Your task to perform on an android device: turn off sleep mode Image 0: 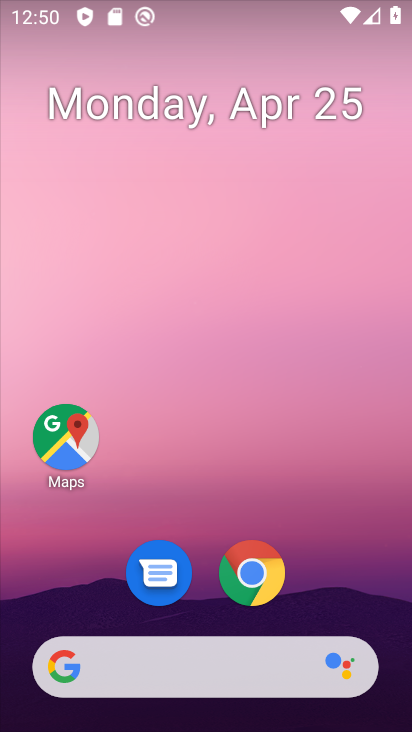
Step 0: drag from (204, 623) to (75, 16)
Your task to perform on an android device: turn off sleep mode Image 1: 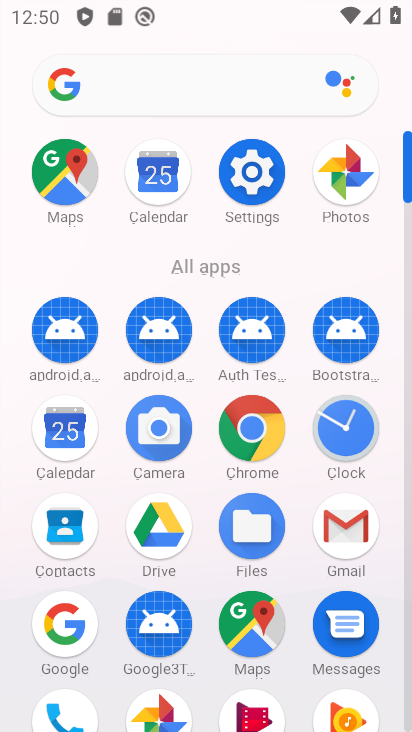
Step 1: click (254, 174)
Your task to perform on an android device: turn off sleep mode Image 2: 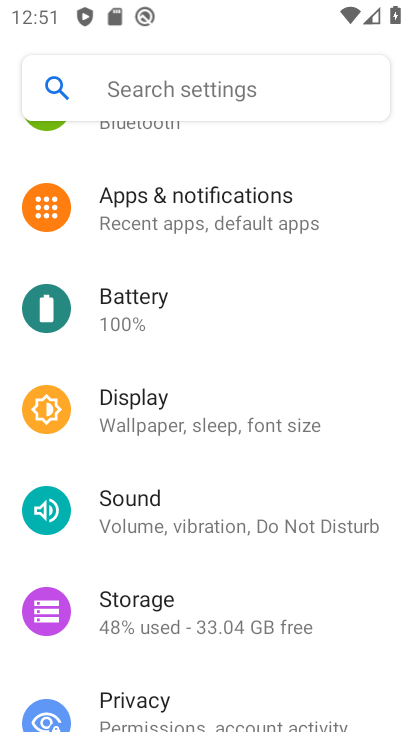
Step 2: click (208, 394)
Your task to perform on an android device: turn off sleep mode Image 3: 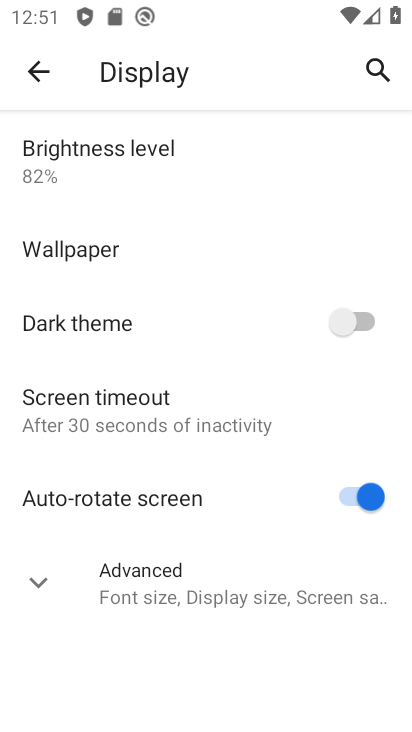
Step 3: click (185, 420)
Your task to perform on an android device: turn off sleep mode Image 4: 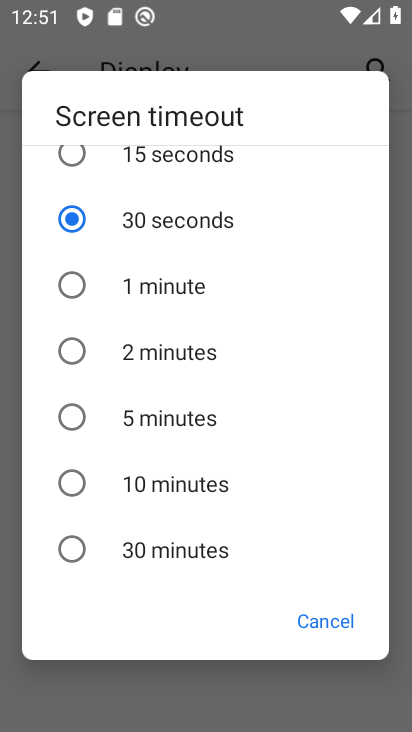
Step 4: drag from (198, 213) to (198, 359)
Your task to perform on an android device: turn off sleep mode Image 5: 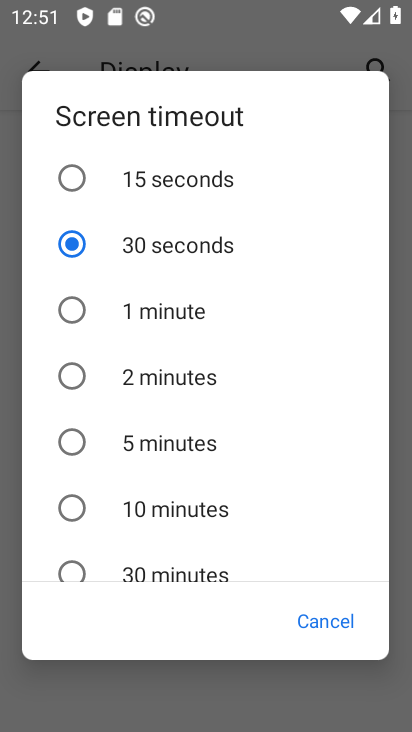
Step 5: click (201, 189)
Your task to perform on an android device: turn off sleep mode Image 6: 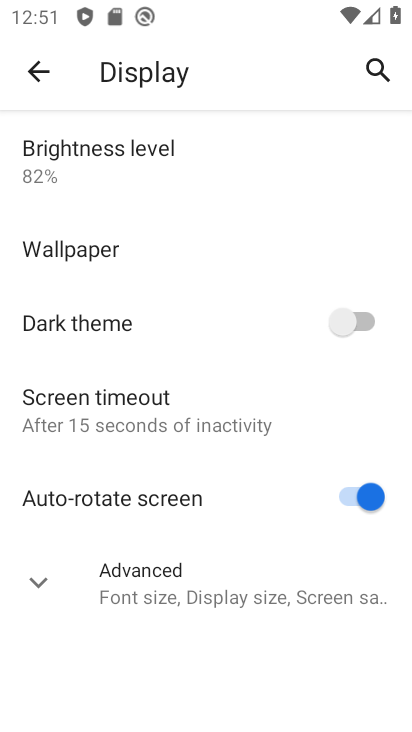
Step 6: task complete